Your task to perform on an android device: move a message to another label in the gmail app Image 0: 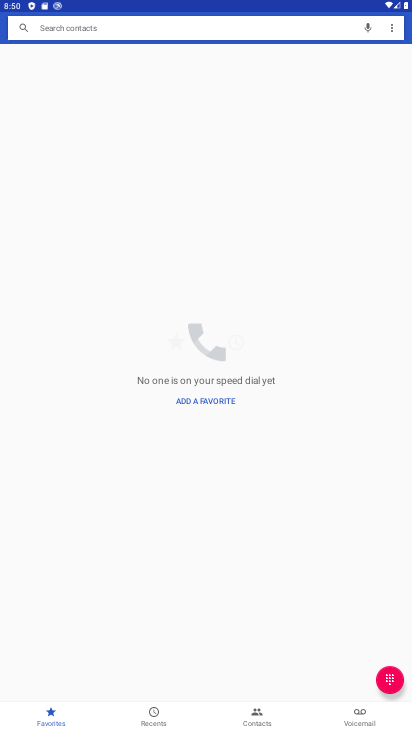
Step 0: press home button
Your task to perform on an android device: move a message to another label in the gmail app Image 1: 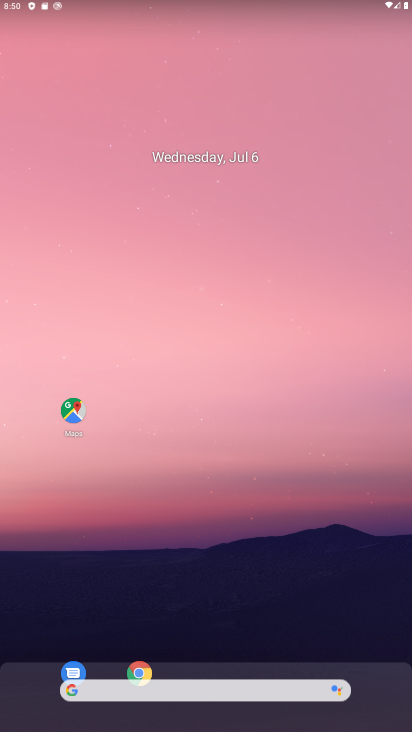
Step 1: drag from (196, 663) to (278, 125)
Your task to perform on an android device: move a message to another label in the gmail app Image 2: 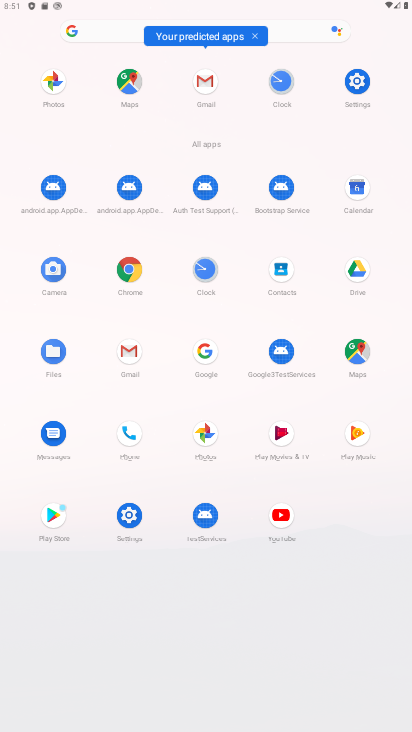
Step 2: click (137, 354)
Your task to perform on an android device: move a message to another label in the gmail app Image 3: 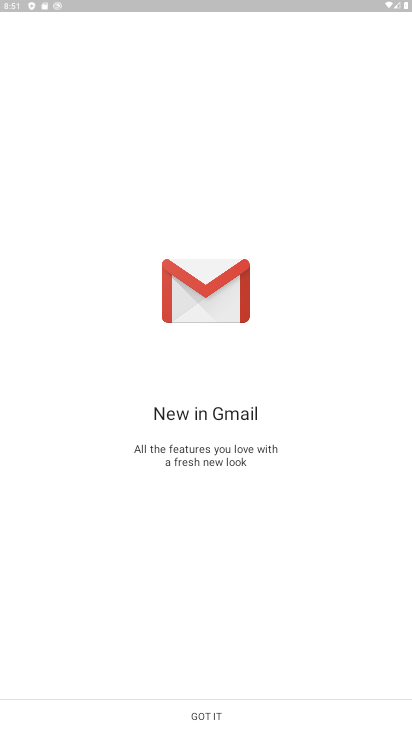
Step 3: click (232, 708)
Your task to perform on an android device: move a message to another label in the gmail app Image 4: 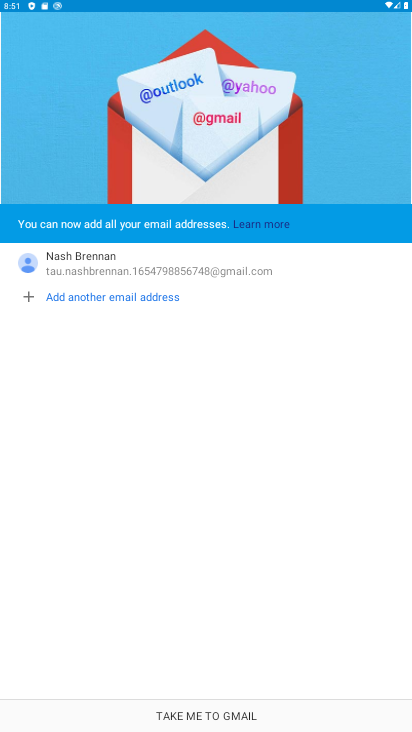
Step 4: click (228, 717)
Your task to perform on an android device: move a message to another label in the gmail app Image 5: 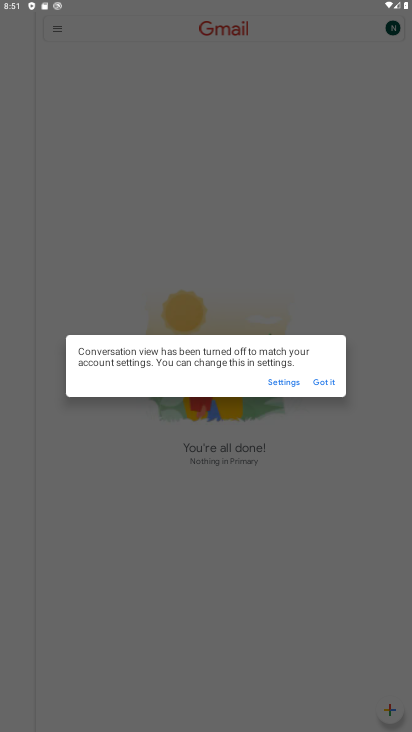
Step 5: click (319, 386)
Your task to perform on an android device: move a message to another label in the gmail app Image 6: 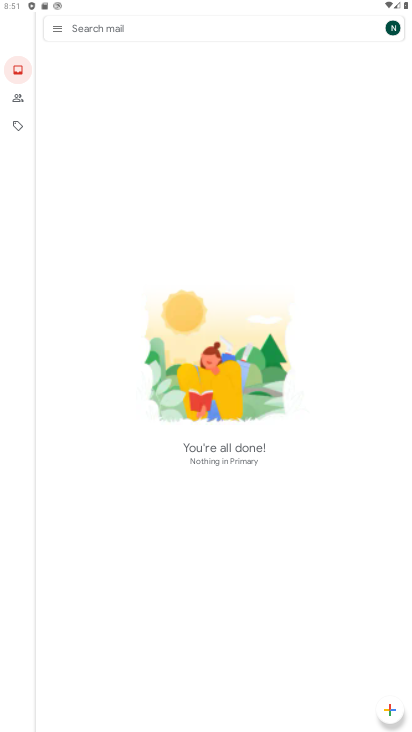
Step 6: task complete